Your task to perform on an android device: Go to accessibility settings Image 0: 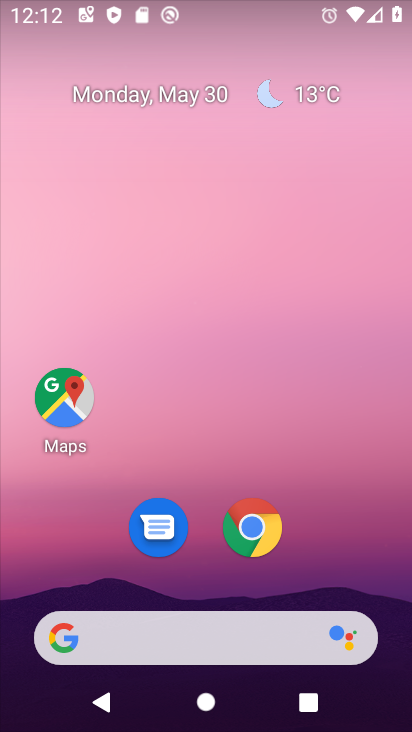
Step 0: drag from (176, 590) to (201, 82)
Your task to perform on an android device: Go to accessibility settings Image 1: 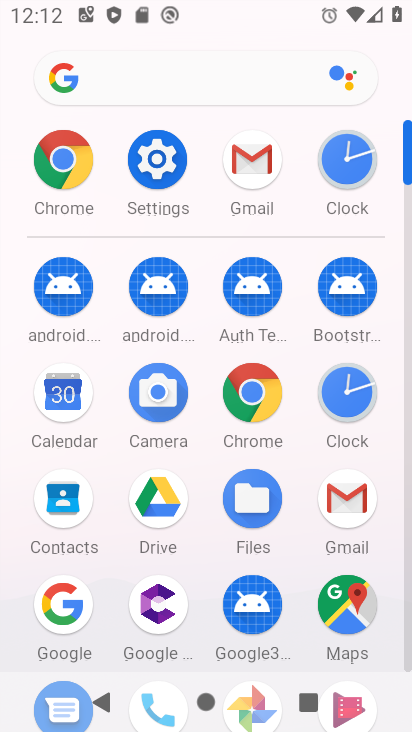
Step 1: click (146, 141)
Your task to perform on an android device: Go to accessibility settings Image 2: 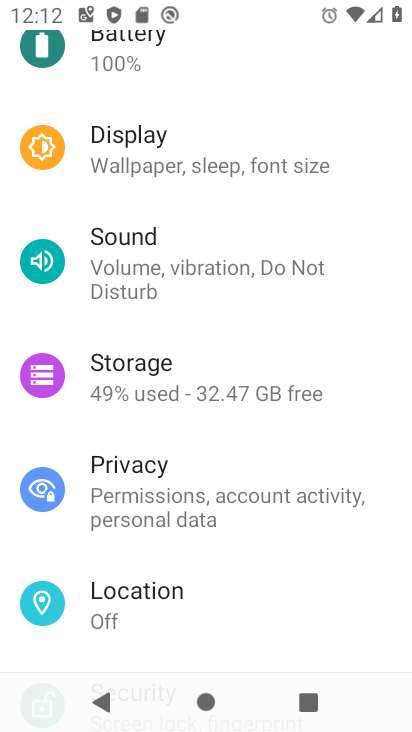
Step 2: drag from (153, 566) to (203, 76)
Your task to perform on an android device: Go to accessibility settings Image 3: 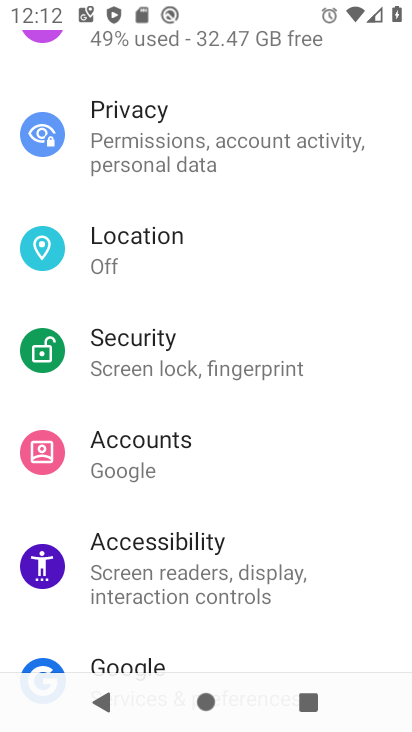
Step 3: drag from (139, 607) to (173, 495)
Your task to perform on an android device: Go to accessibility settings Image 4: 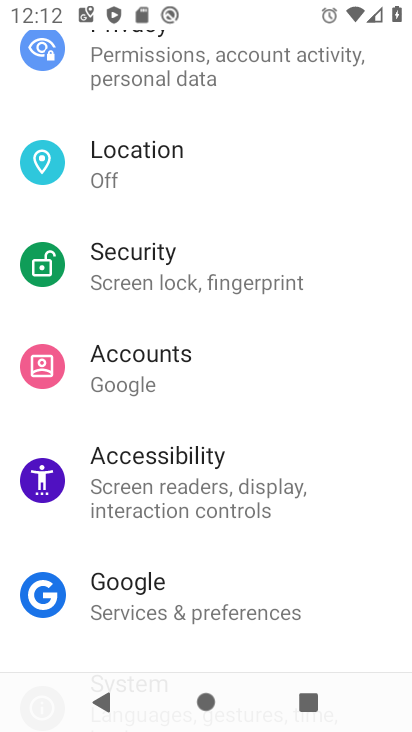
Step 4: click (140, 496)
Your task to perform on an android device: Go to accessibility settings Image 5: 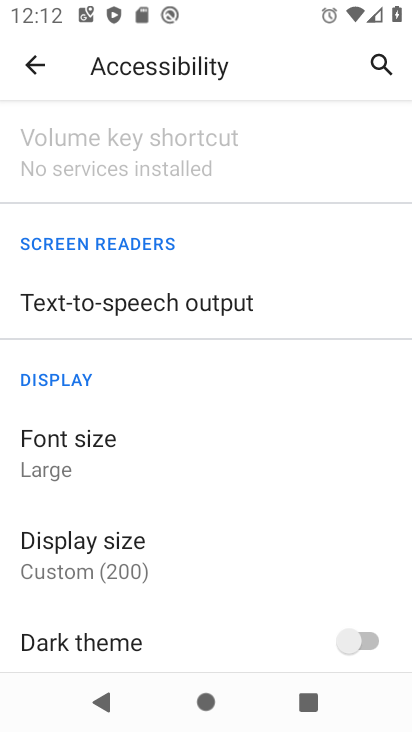
Step 5: task complete